Your task to perform on an android device: Open Android settings Image 0: 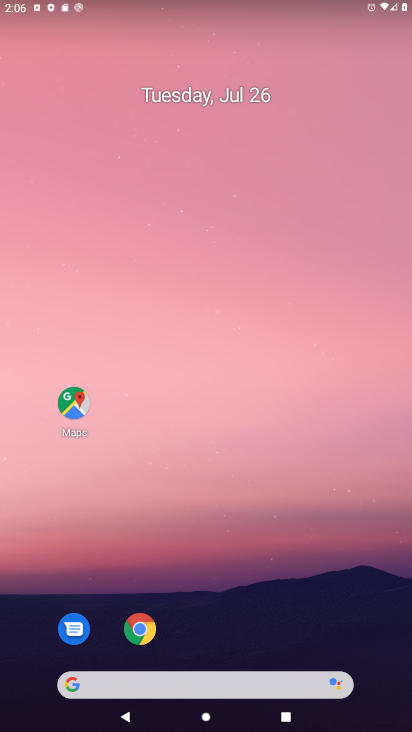
Step 0: drag from (388, 655) to (330, 166)
Your task to perform on an android device: Open Android settings Image 1: 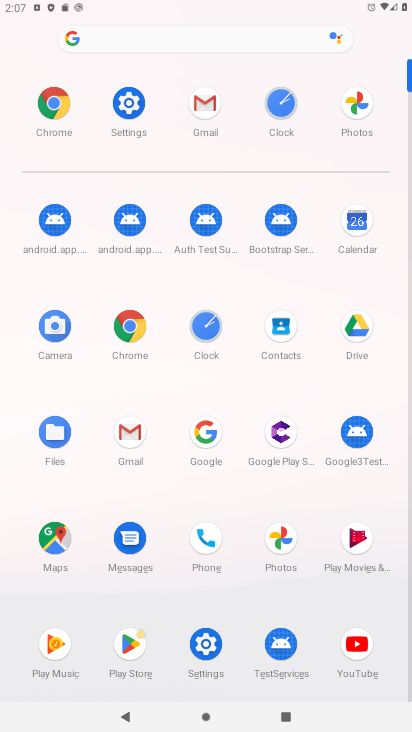
Step 1: click (209, 649)
Your task to perform on an android device: Open Android settings Image 2: 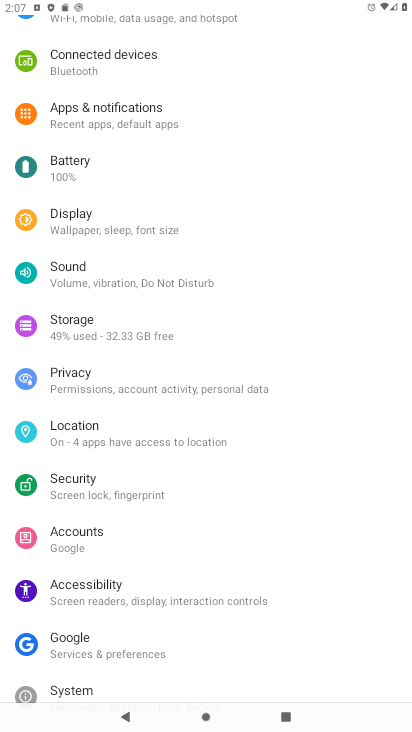
Step 2: drag from (170, 664) to (236, 343)
Your task to perform on an android device: Open Android settings Image 3: 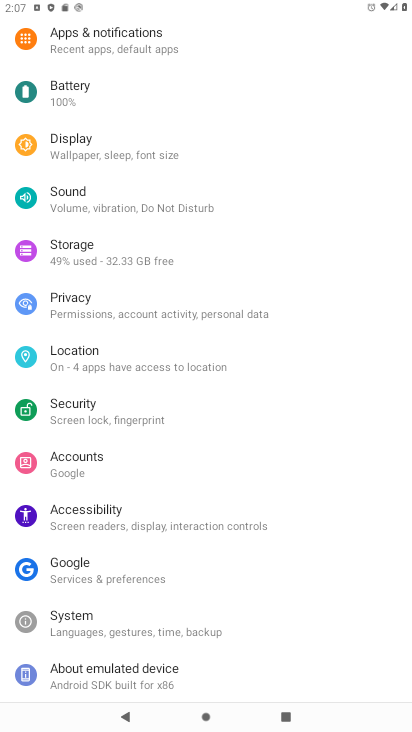
Step 3: click (106, 679)
Your task to perform on an android device: Open Android settings Image 4: 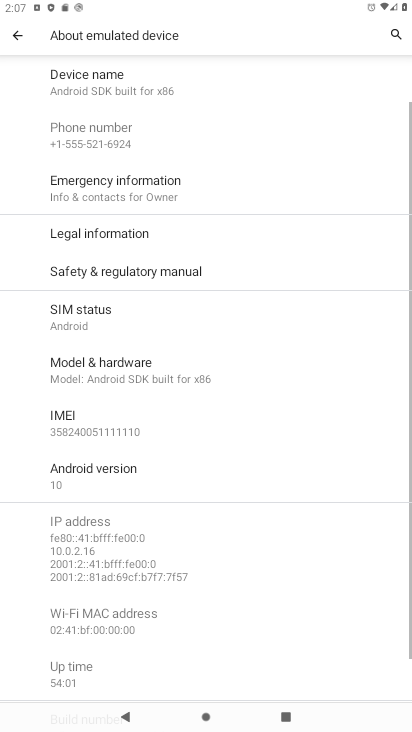
Step 4: click (267, 233)
Your task to perform on an android device: Open Android settings Image 5: 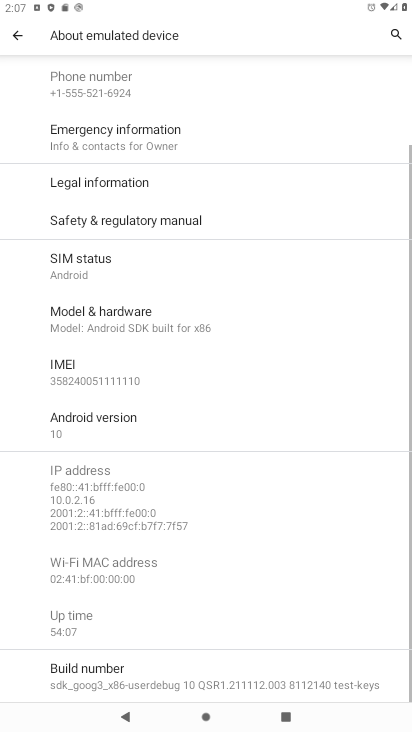
Step 5: task complete